Your task to perform on an android device: open chrome privacy settings Image 0: 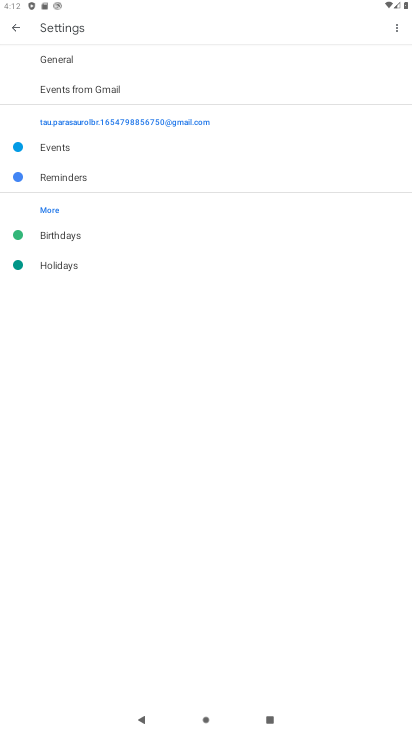
Step 0: press home button
Your task to perform on an android device: open chrome privacy settings Image 1: 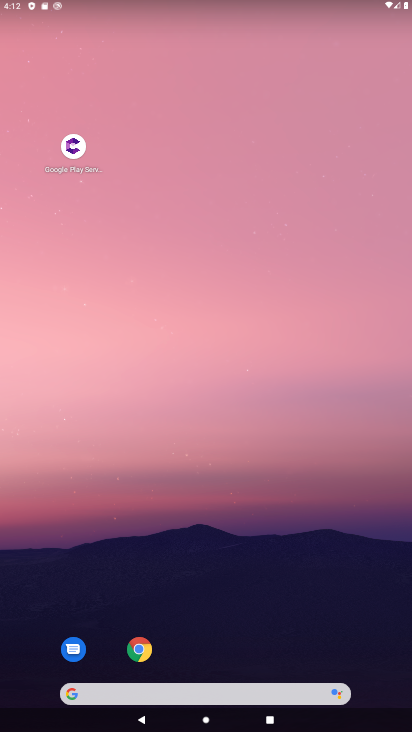
Step 1: drag from (332, 593) to (181, 63)
Your task to perform on an android device: open chrome privacy settings Image 2: 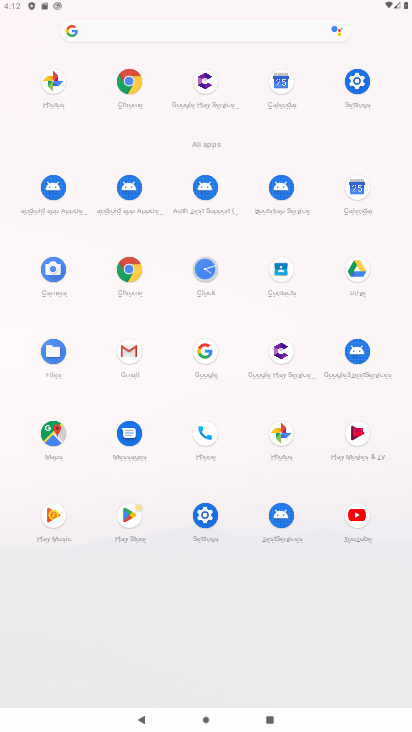
Step 2: click (129, 85)
Your task to perform on an android device: open chrome privacy settings Image 3: 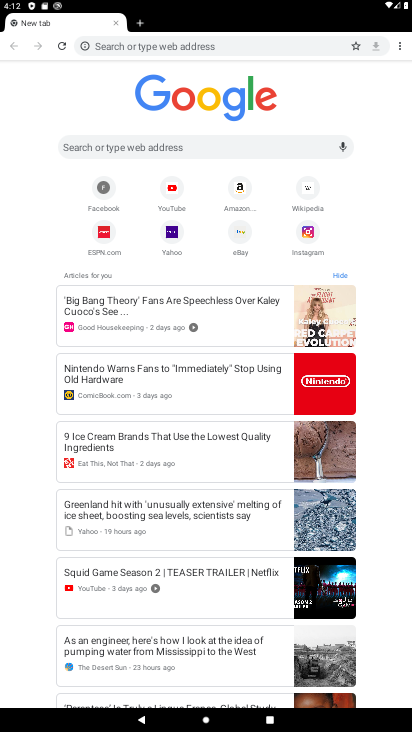
Step 3: drag from (396, 45) to (350, 216)
Your task to perform on an android device: open chrome privacy settings Image 4: 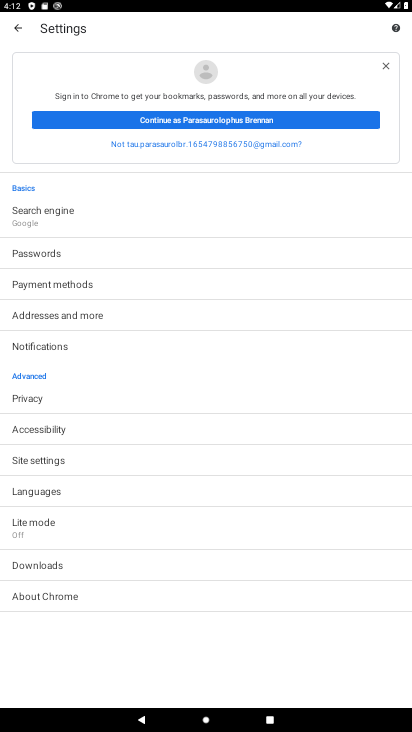
Step 4: click (60, 405)
Your task to perform on an android device: open chrome privacy settings Image 5: 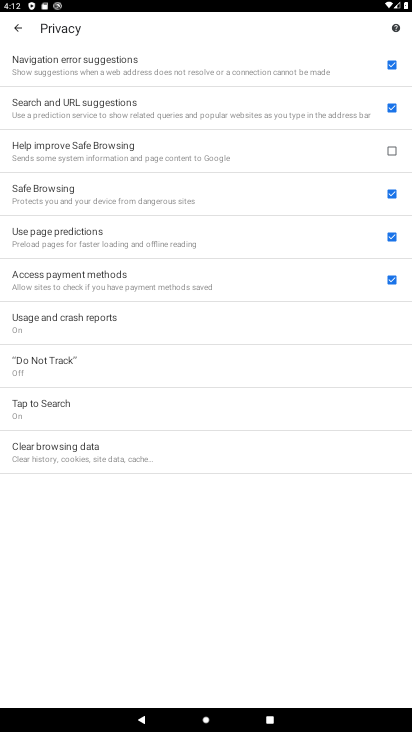
Step 5: task complete